Your task to perform on an android device: open chrome privacy settings Image 0: 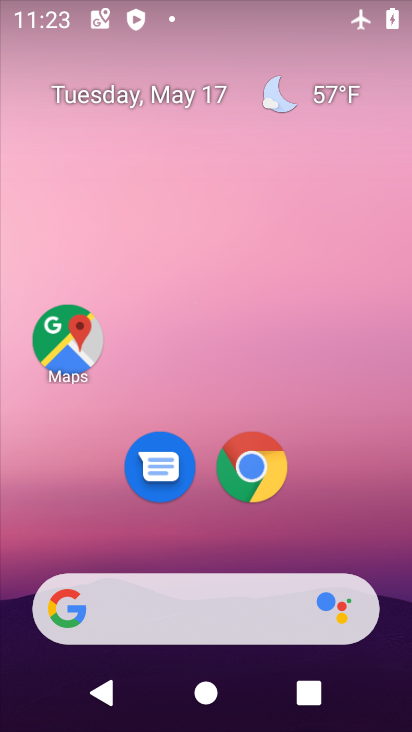
Step 0: press home button
Your task to perform on an android device: open chrome privacy settings Image 1: 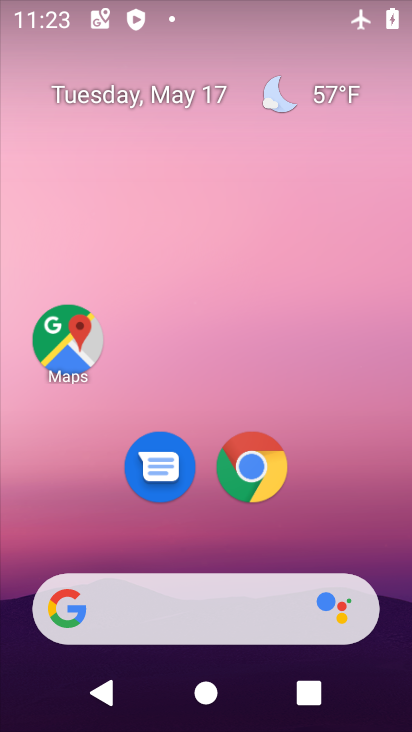
Step 1: drag from (245, 644) to (299, 171)
Your task to perform on an android device: open chrome privacy settings Image 2: 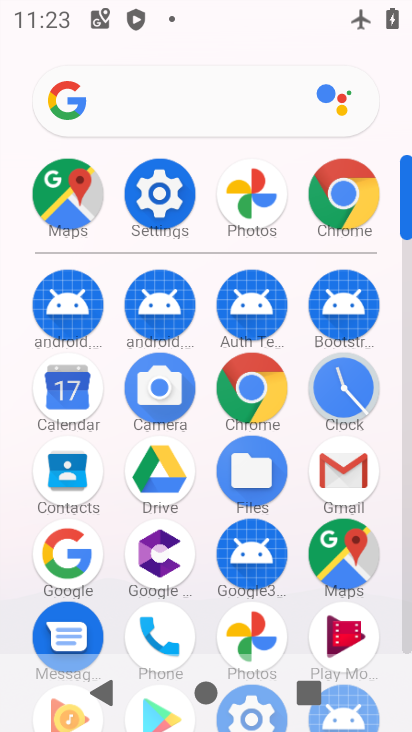
Step 2: click (332, 205)
Your task to perform on an android device: open chrome privacy settings Image 3: 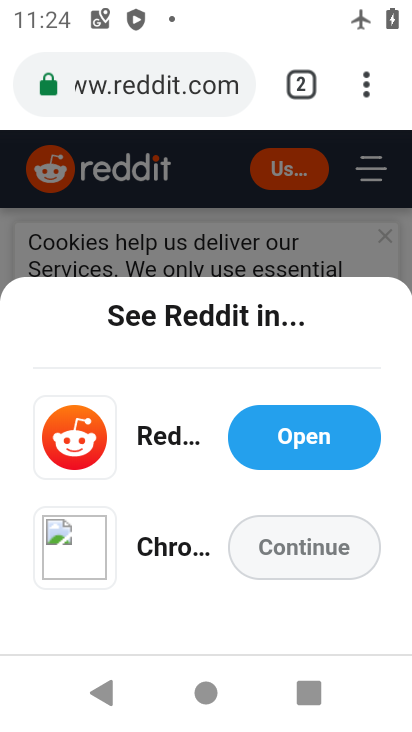
Step 3: click (360, 105)
Your task to perform on an android device: open chrome privacy settings Image 4: 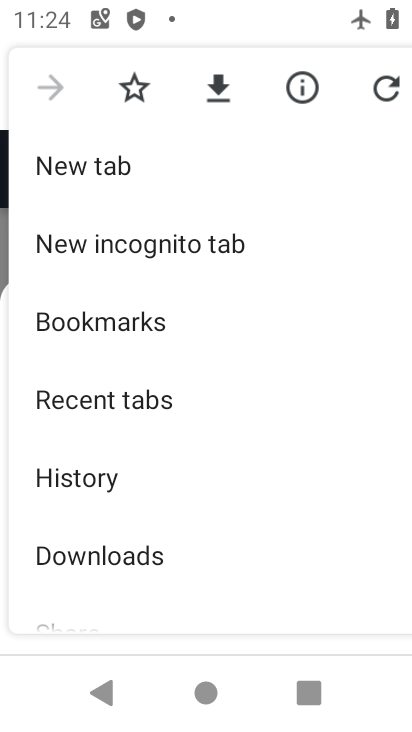
Step 4: drag from (223, 536) to (229, 295)
Your task to perform on an android device: open chrome privacy settings Image 5: 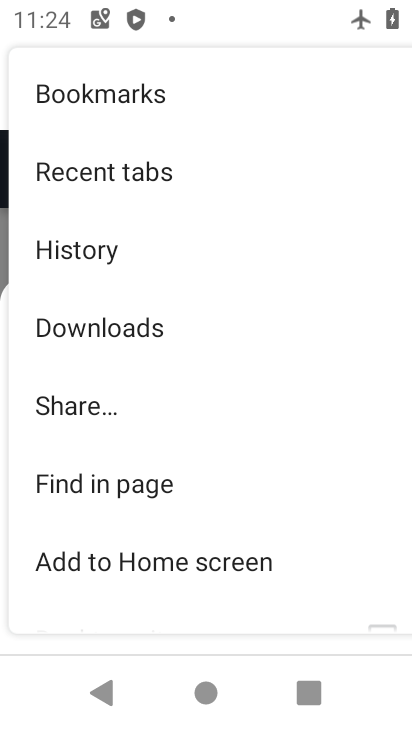
Step 5: drag from (154, 492) to (219, 235)
Your task to perform on an android device: open chrome privacy settings Image 6: 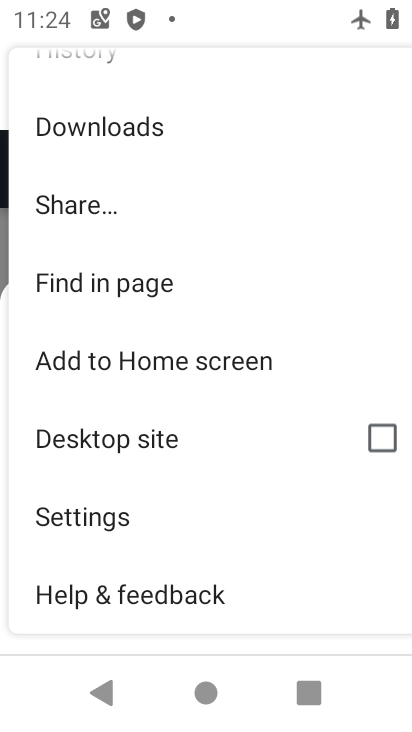
Step 6: click (136, 514)
Your task to perform on an android device: open chrome privacy settings Image 7: 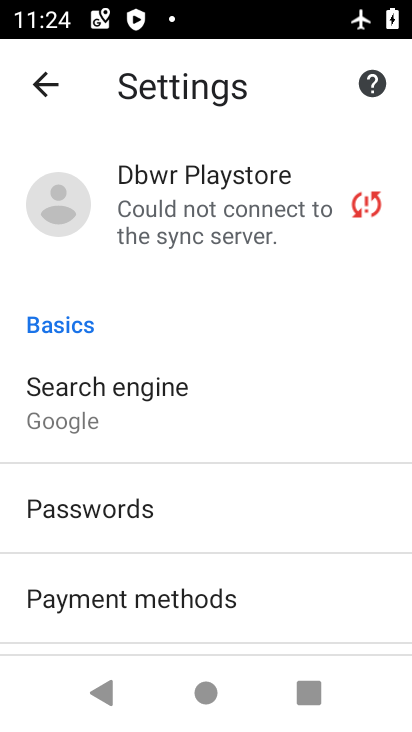
Step 7: drag from (157, 505) to (225, 196)
Your task to perform on an android device: open chrome privacy settings Image 8: 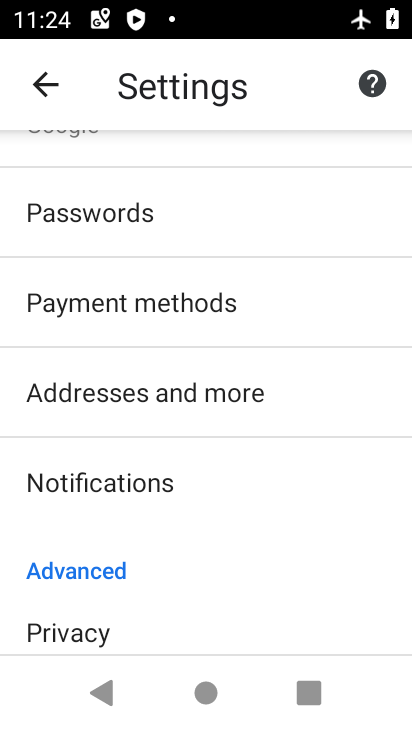
Step 8: drag from (144, 569) to (158, 520)
Your task to perform on an android device: open chrome privacy settings Image 9: 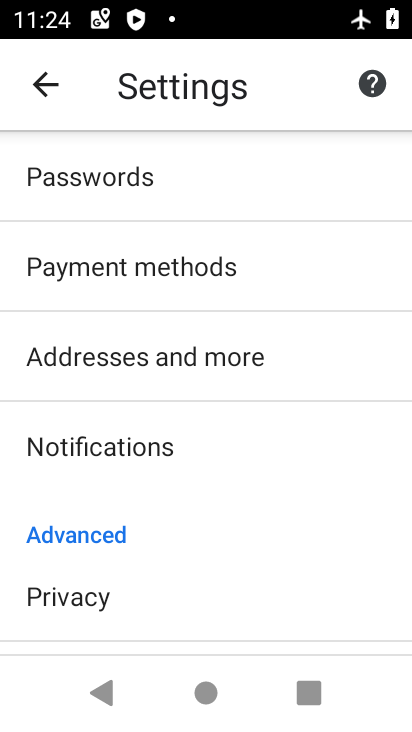
Step 9: click (70, 604)
Your task to perform on an android device: open chrome privacy settings Image 10: 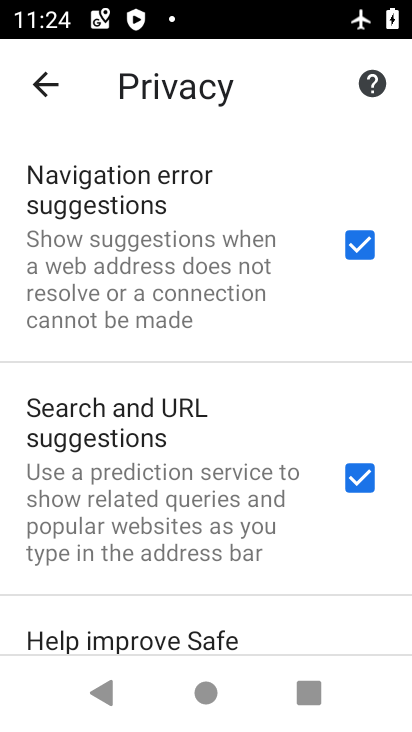
Step 10: task complete